Your task to perform on an android device: empty trash in the gmail app Image 0: 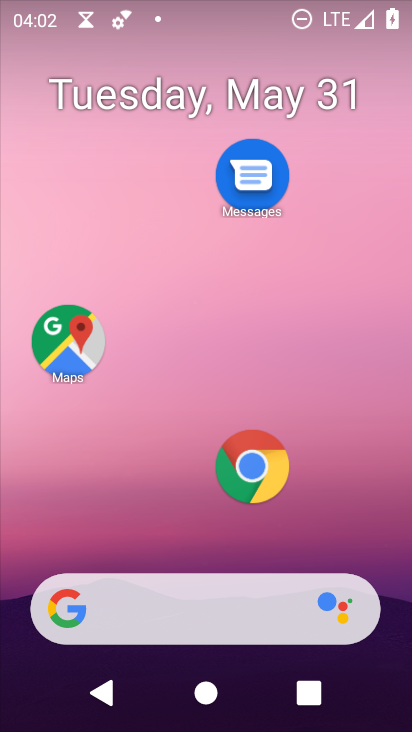
Step 0: drag from (178, 526) to (249, 43)
Your task to perform on an android device: empty trash in the gmail app Image 1: 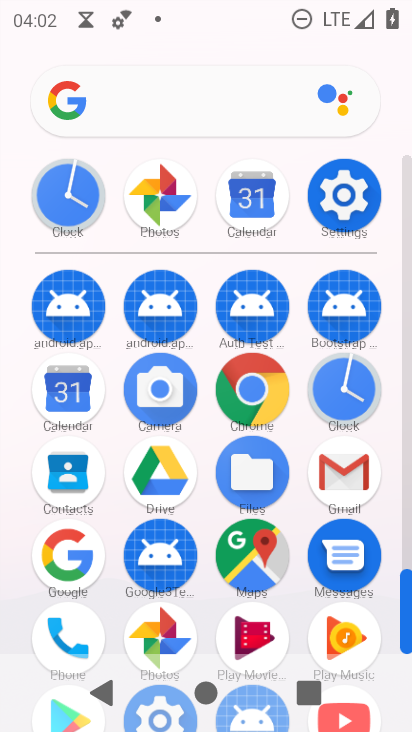
Step 1: click (333, 474)
Your task to perform on an android device: empty trash in the gmail app Image 2: 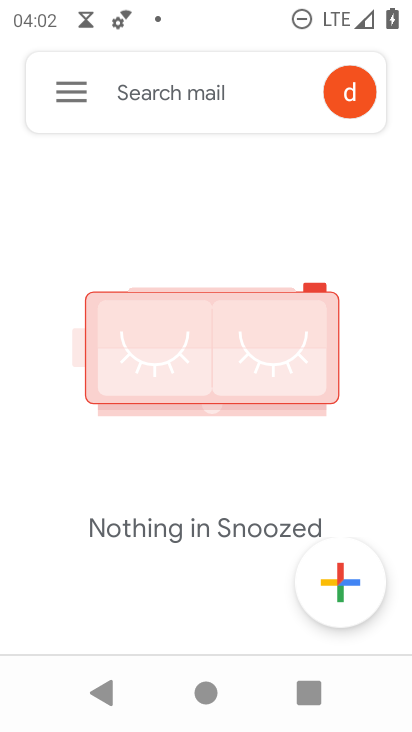
Step 2: click (77, 79)
Your task to perform on an android device: empty trash in the gmail app Image 3: 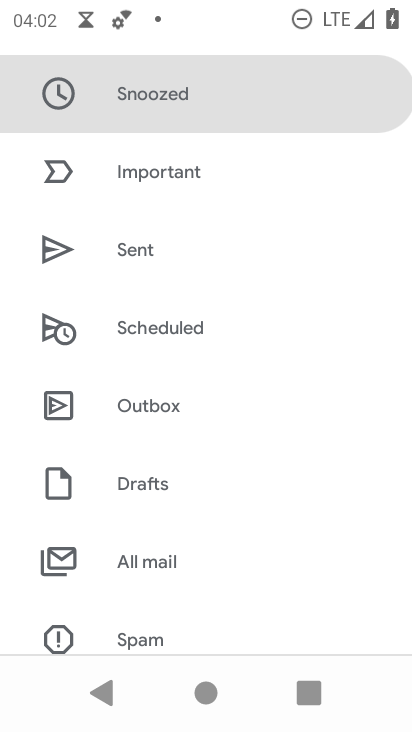
Step 3: drag from (161, 596) to (313, 150)
Your task to perform on an android device: empty trash in the gmail app Image 4: 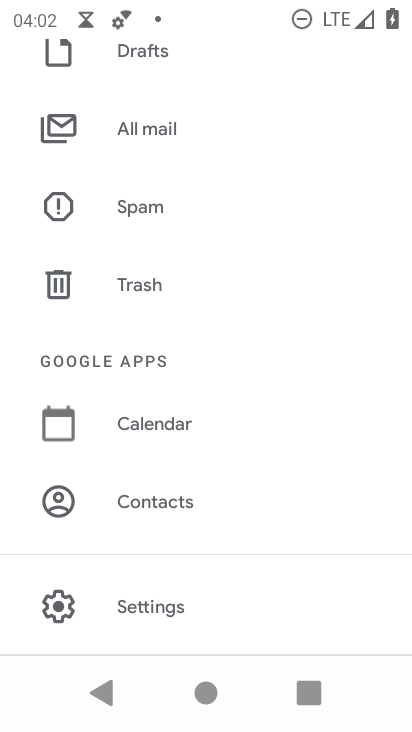
Step 4: click (113, 277)
Your task to perform on an android device: empty trash in the gmail app Image 5: 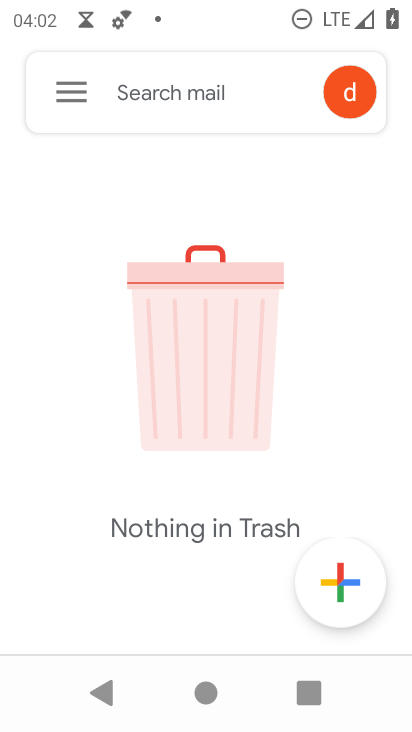
Step 5: task complete